Your task to perform on an android device: change the clock display to show seconds Image 0: 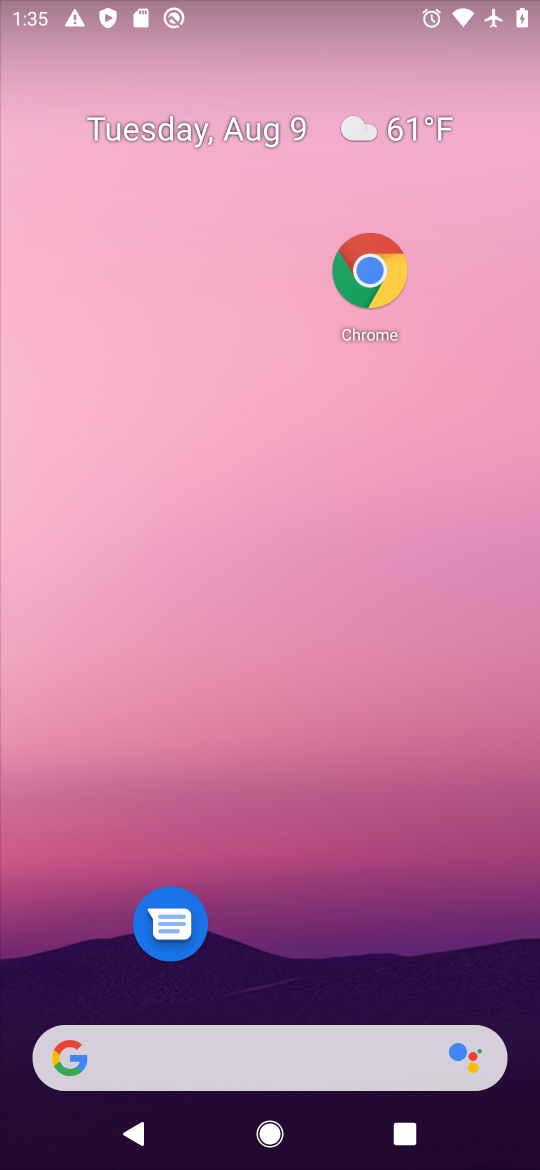
Step 0: drag from (309, 1004) to (252, 324)
Your task to perform on an android device: change the clock display to show seconds Image 1: 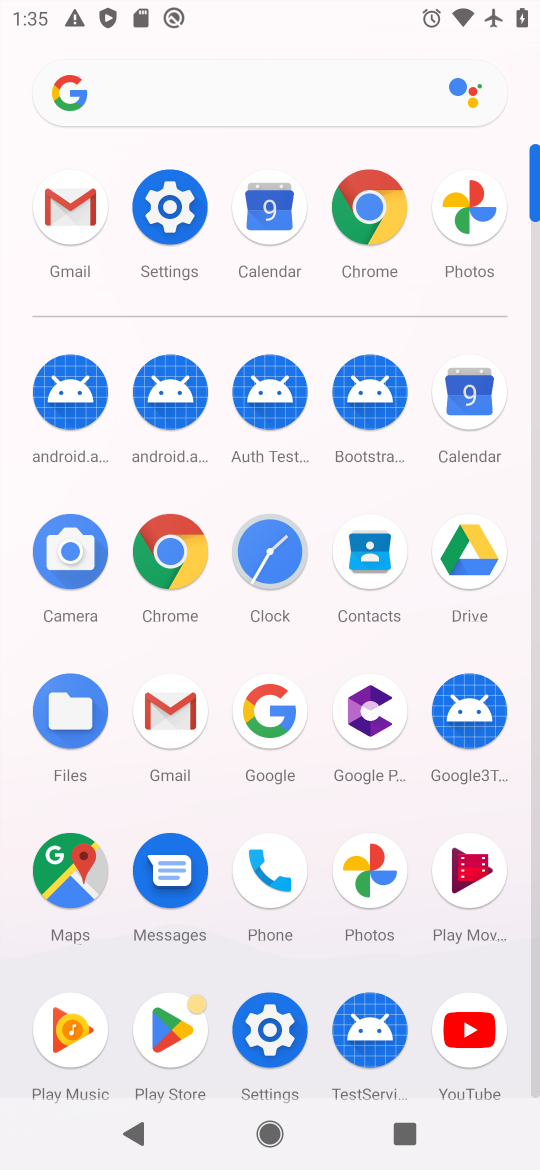
Step 1: click (293, 532)
Your task to perform on an android device: change the clock display to show seconds Image 2: 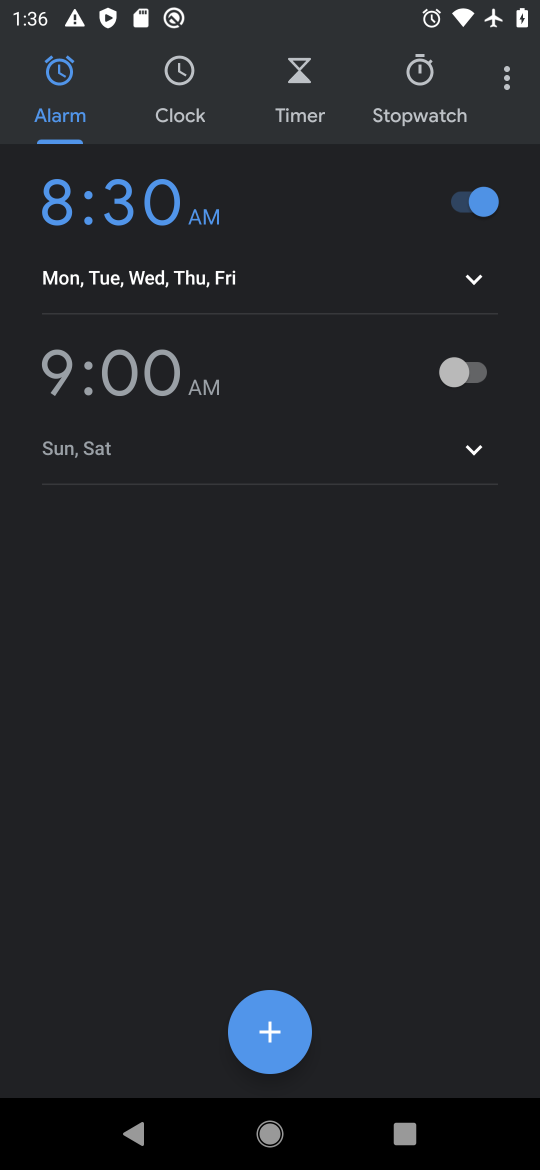
Step 2: click (494, 68)
Your task to perform on an android device: change the clock display to show seconds Image 3: 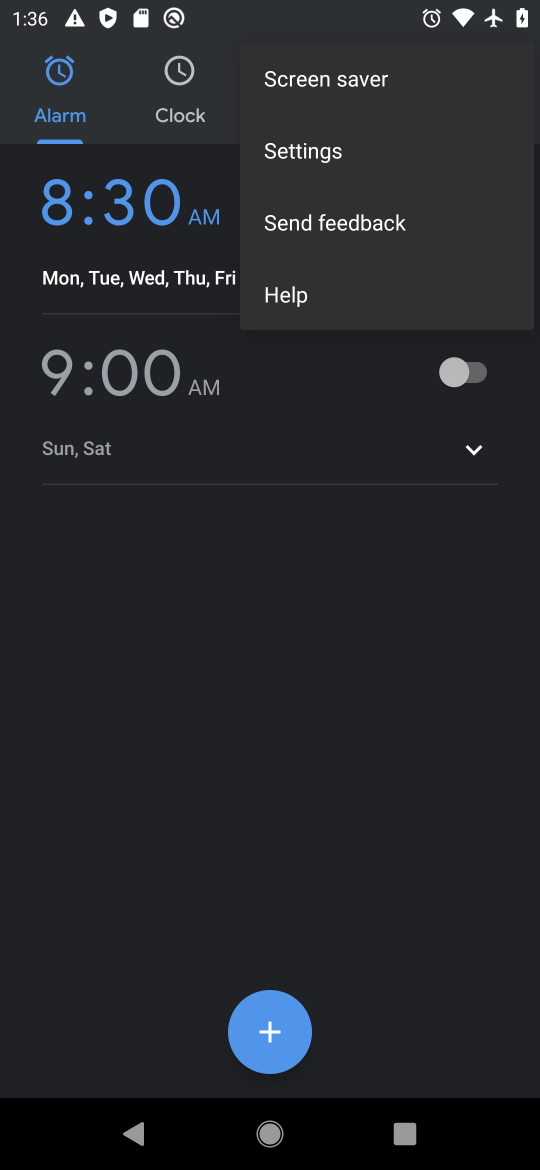
Step 3: click (353, 154)
Your task to perform on an android device: change the clock display to show seconds Image 4: 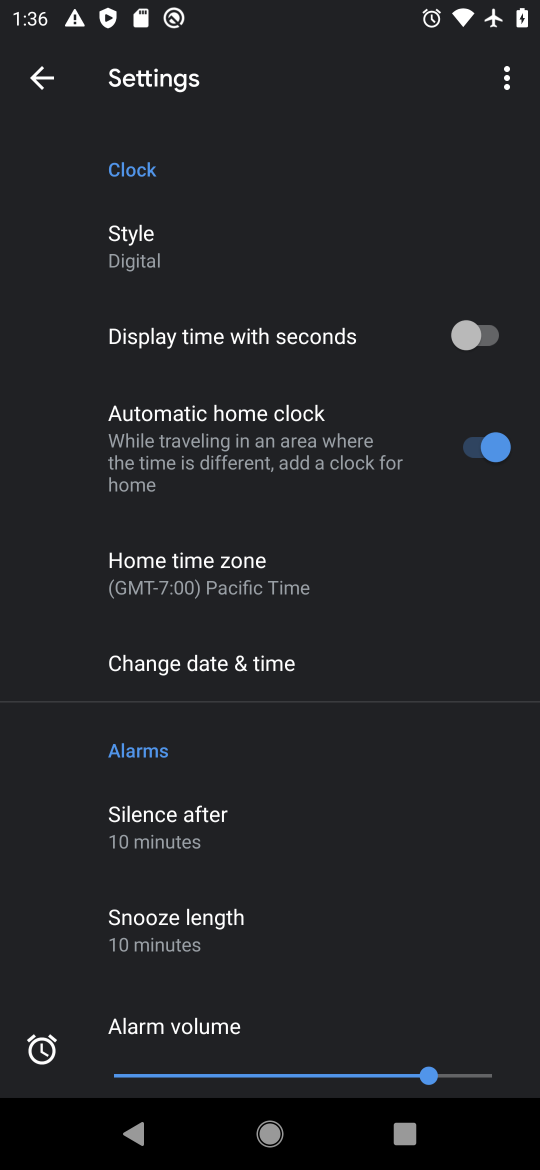
Step 4: click (468, 329)
Your task to perform on an android device: change the clock display to show seconds Image 5: 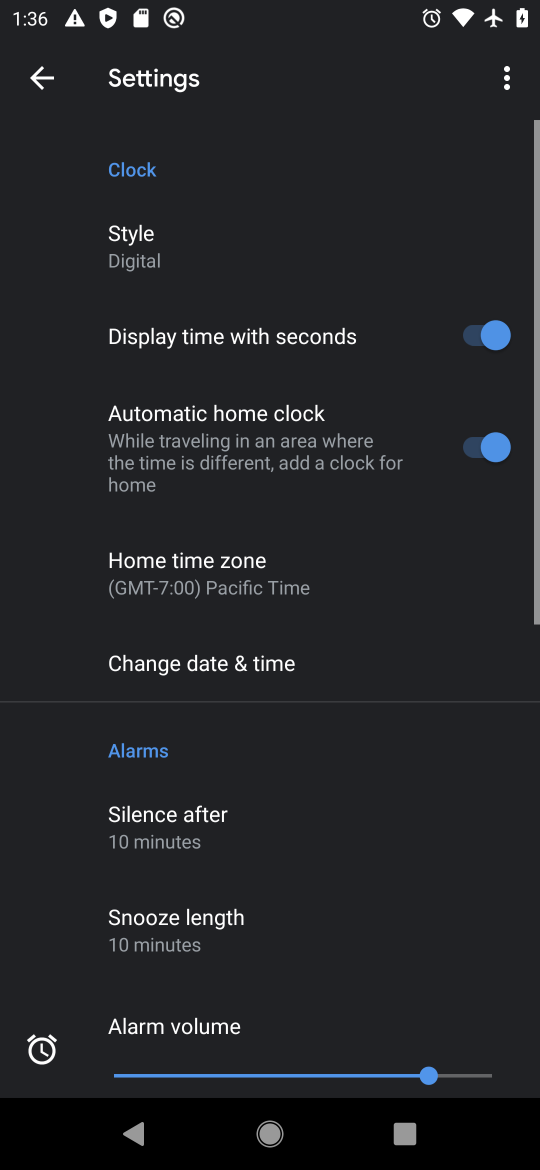
Step 5: task complete